Your task to perform on an android device: toggle data saver in the chrome app Image 0: 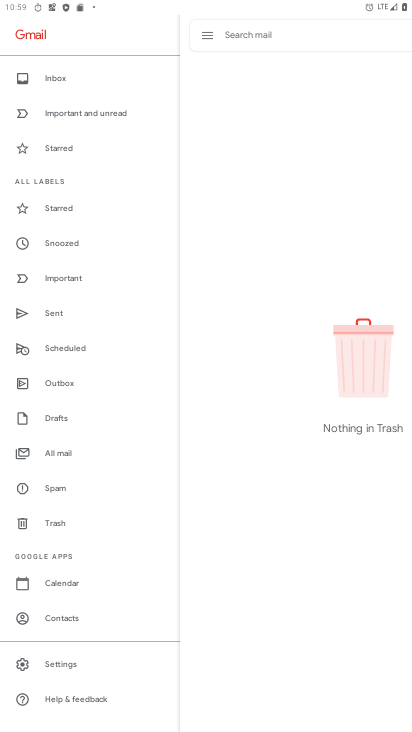
Step 0: press home button
Your task to perform on an android device: toggle data saver in the chrome app Image 1: 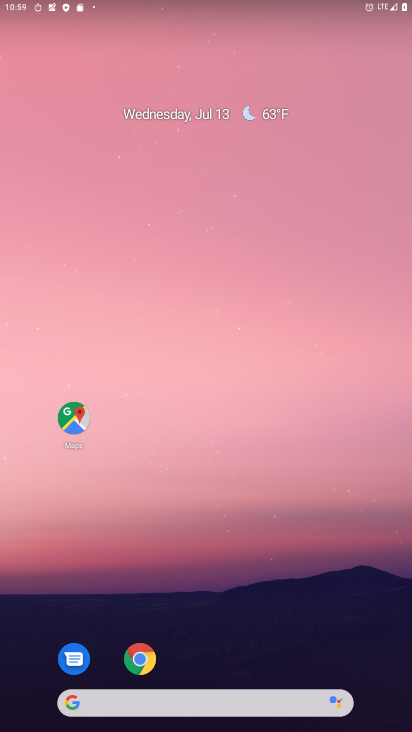
Step 1: drag from (329, 641) to (252, 64)
Your task to perform on an android device: toggle data saver in the chrome app Image 2: 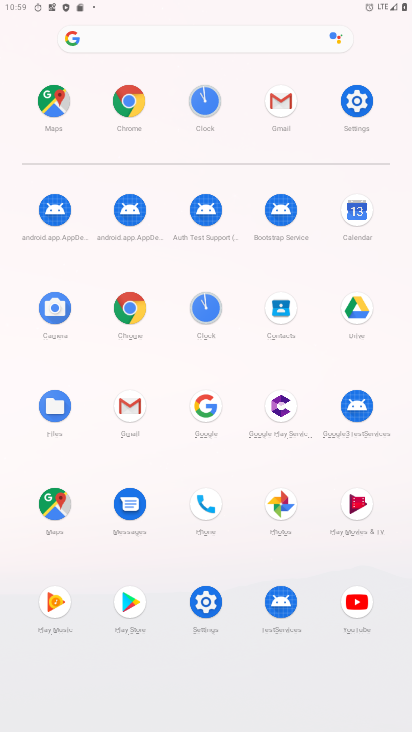
Step 2: click (128, 301)
Your task to perform on an android device: toggle data saver in the chrome app Image 3: 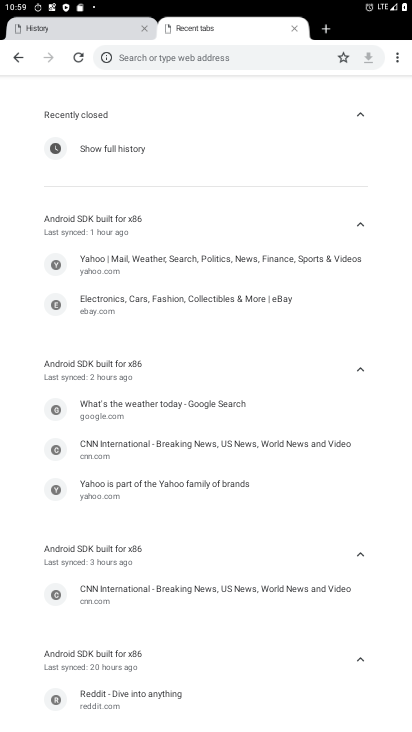
Step 3: drag from (398, 57) to (272, 264)
Your task to perform on an android device: toggle data saver in the chrome app Image 4: 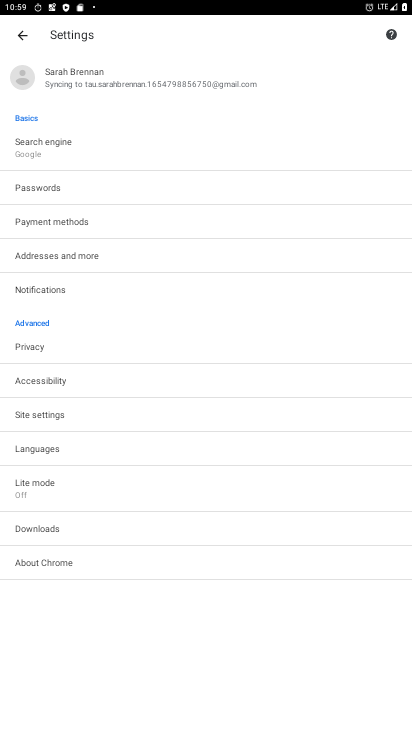
Step 4: click (51, 497)
Your task to perform on an android device: toggle data saver in the chrome app Image 5: 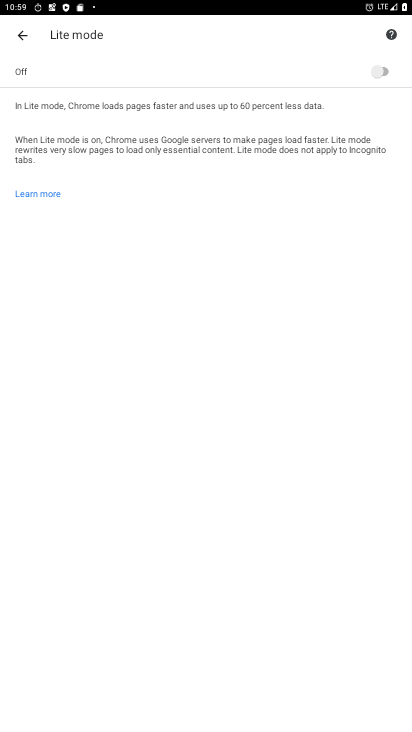
Step 5: click (380, 71)
Your task to perform on an android device: toggle data saver in the chrome app Image 6: 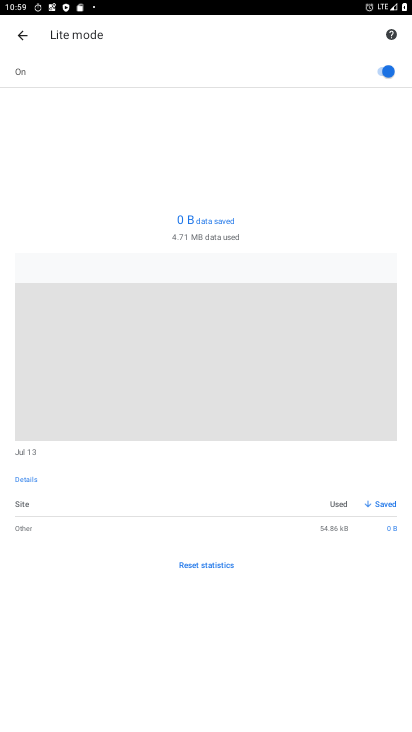
Step 6: task complete